Your task to perform on an android device: Open maps Image 0: 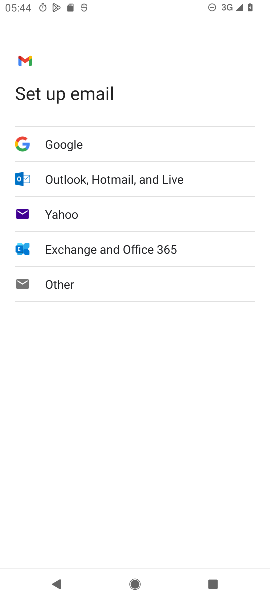
Step 0: press home button
Your task to perform on an android device: Open maps Image 1: 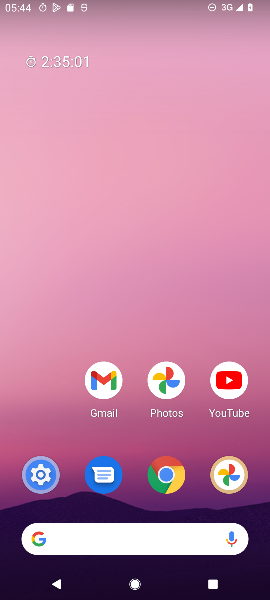
Step 1: drag from (64, 432) to (66, 149)
Your task to perform on an android device: Open maps Image 2: 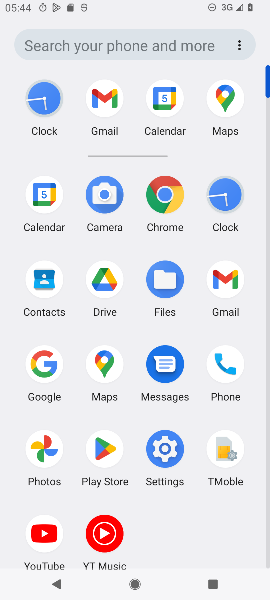
Step 2: click (103, 364)
Your task to perform on an android device: Open maps Image 3: 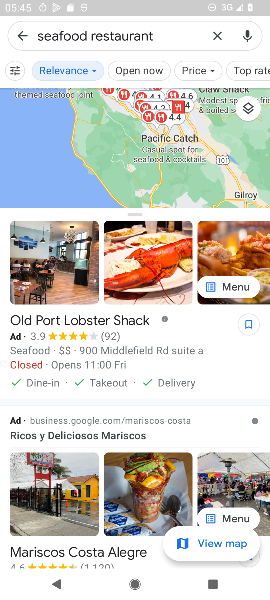
Step 3: task complete